Your task to perform on an android device: Is it going to rain tomorrow? Image 0: 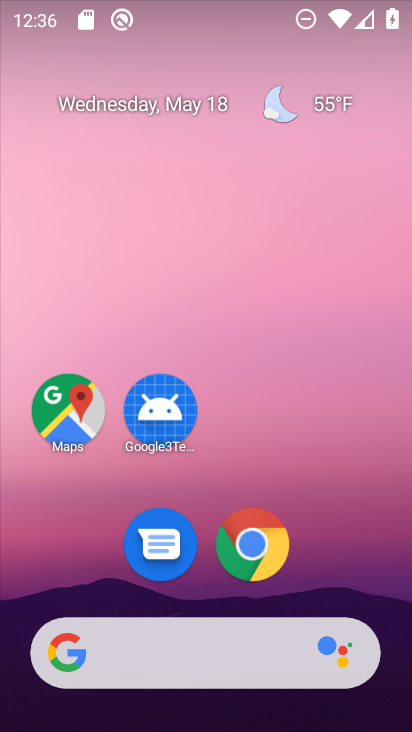
Step 0: click (315, 115)
Your task to perform on an android device: Is it going to rain tomorrow? Image 1: 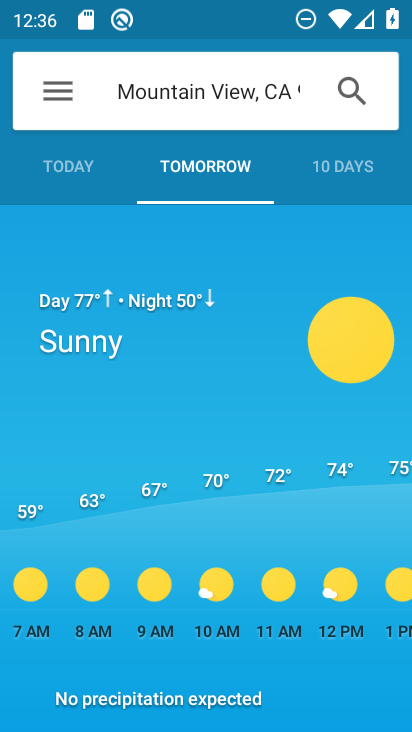
Step 1: task complete